Your task to perform on an android device: What's the weather going to be this weekend? Image 0: 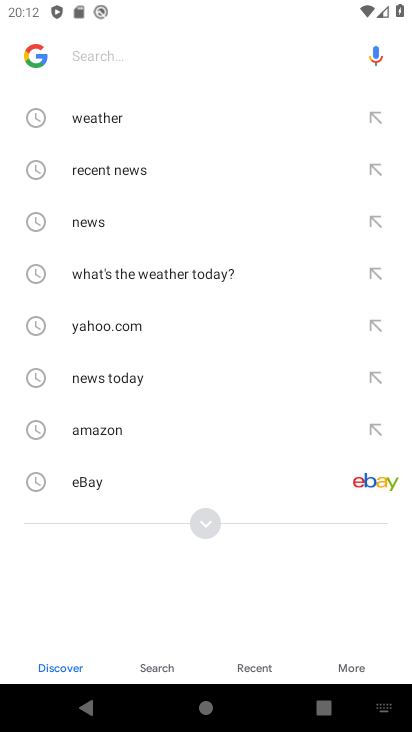
Step 0: press home button
Your task to perform on an android device: What's the weather going to be this weekend? Image 1: 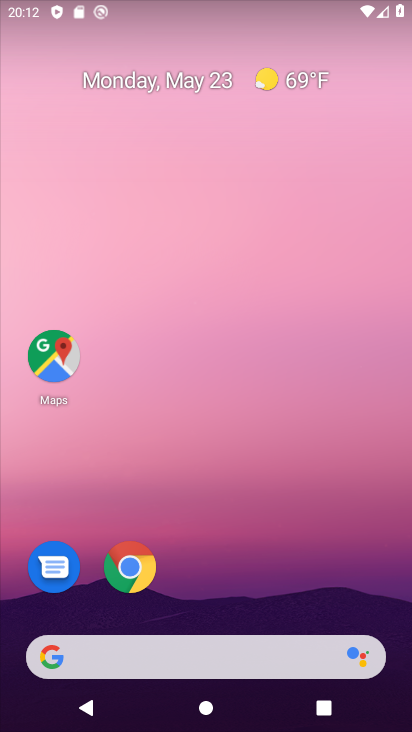
Step 1: drag from (197, 557) to (241, 135)
Your task to perform on an android device: What's the weather going to be this weekend? Image 2: 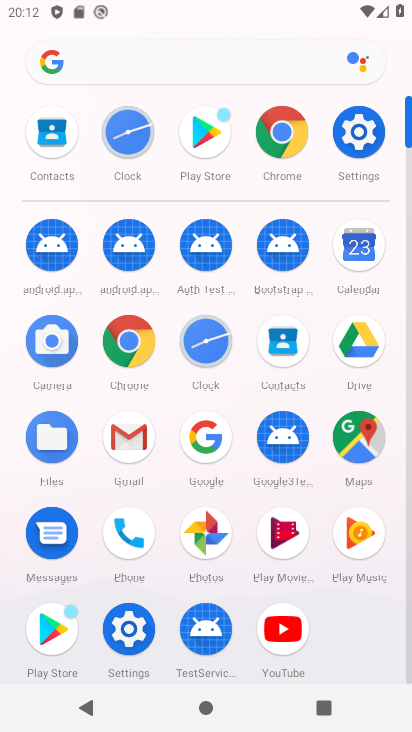
Step 2: press home button
Your task to perform on an android device: What's the weather going to be this weekend? Image 3: 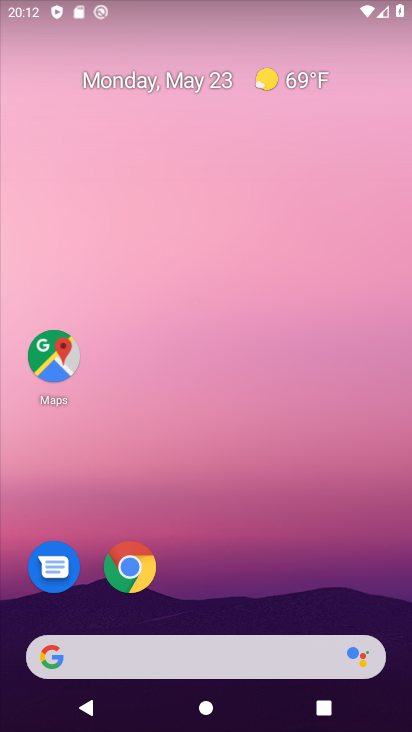
Step 3: click (298, 82)
Your task to perform on an android device: What's the weather going to be this weekend? Image 4: 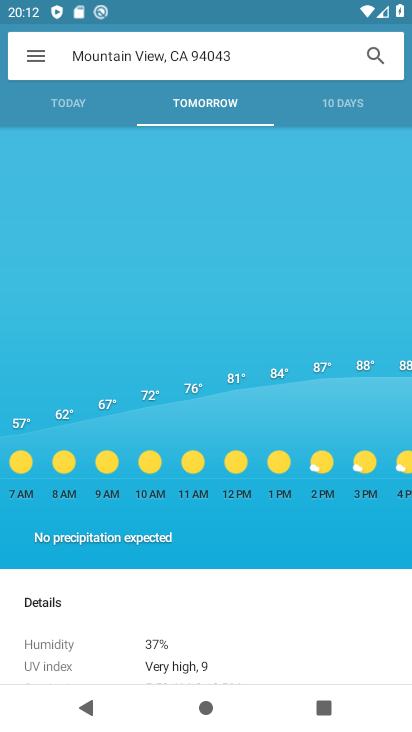
Step 4: click (354, 104)
Your task to perform on an android device: What's the weather going to be this weekend? Image 5: 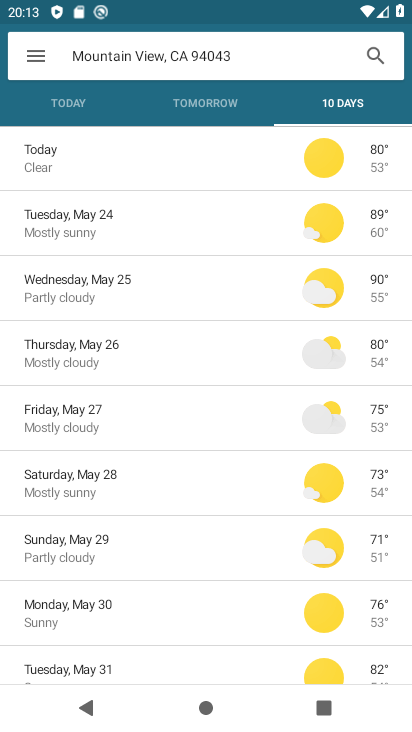
Step 5: task complete